Your task to perform on an android device: delete location history Image 0: 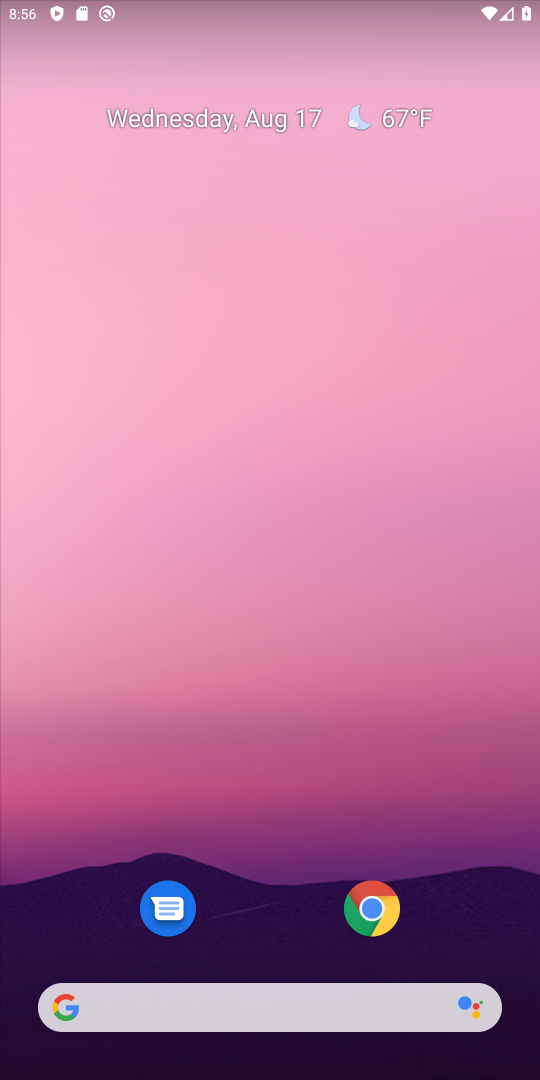
Step 0: drag from (260, 842) to (149, 69)
Your task to perform on an android device: delete location history Image 1: 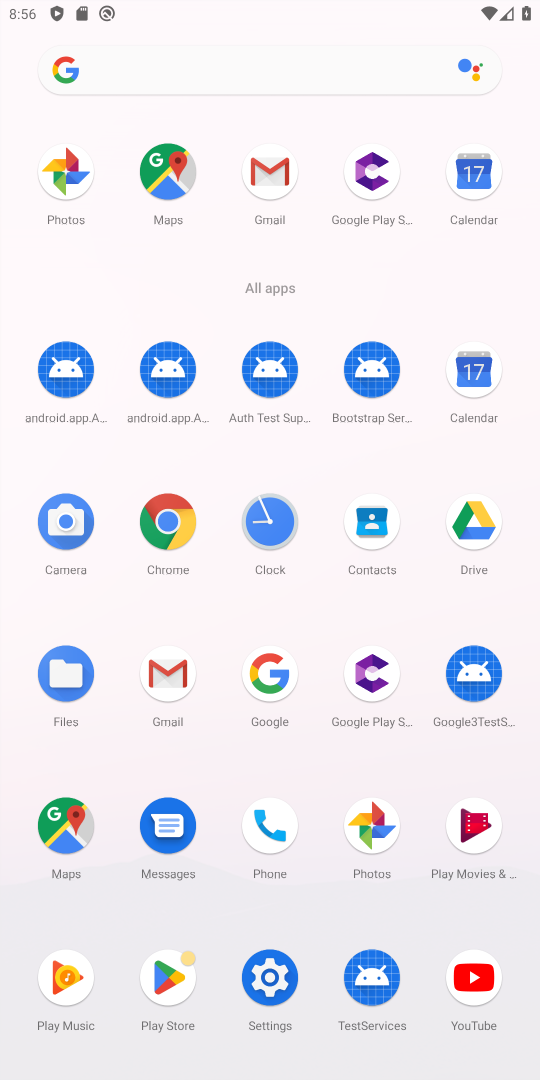
Step 1: click (47, 831)
Your task to perform on an android device: delete location history Image 2: 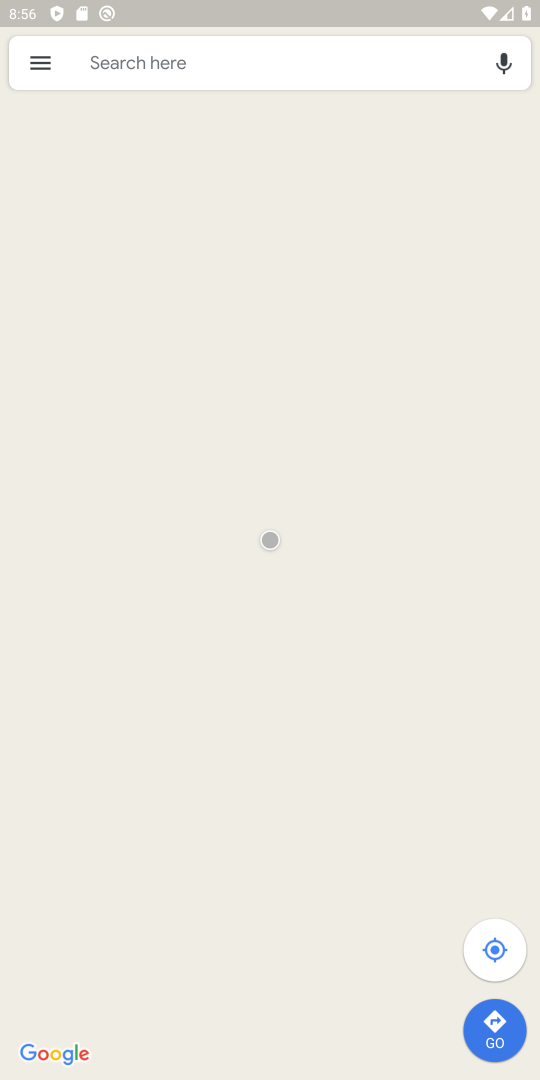
Step 2: click (33, 60)
Your task to perform on an android device: delete location history Image 3: 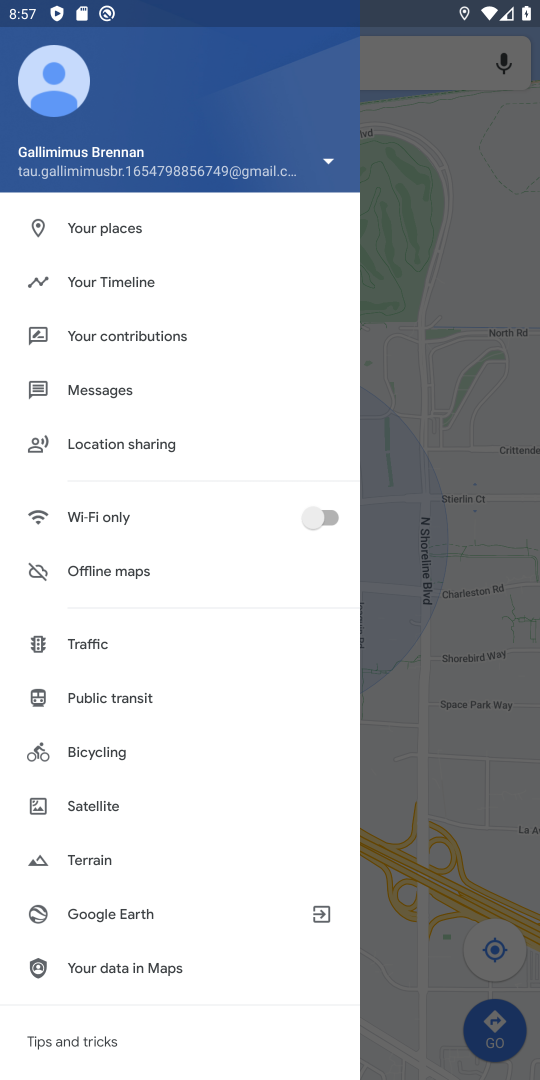
Step 3: click (137, 277)
Your task to perform on an android device: delete location history Image 4: 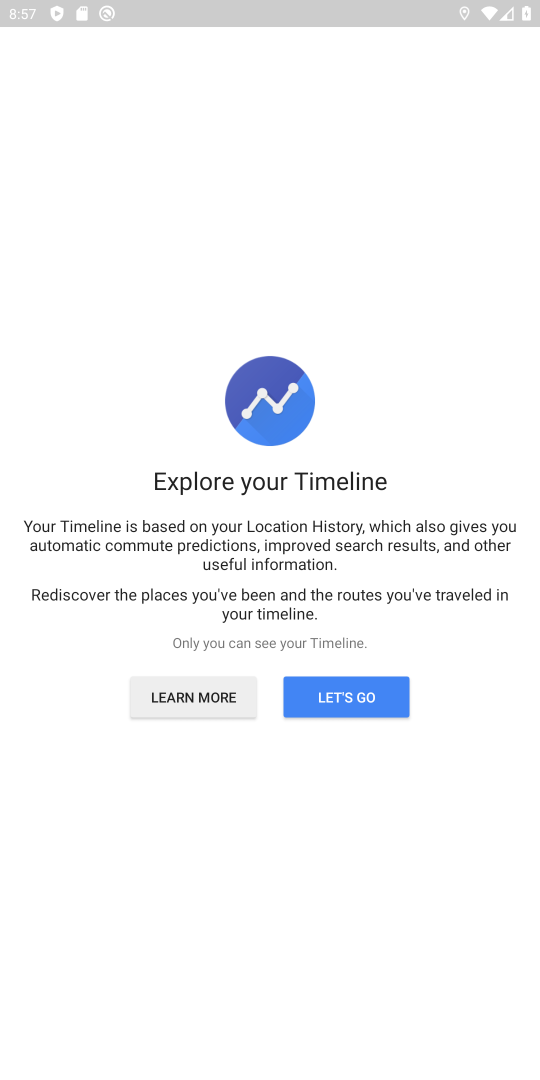
Step 4: click (356, 704)
Your task to perform on an android device: delete location history Image 5: 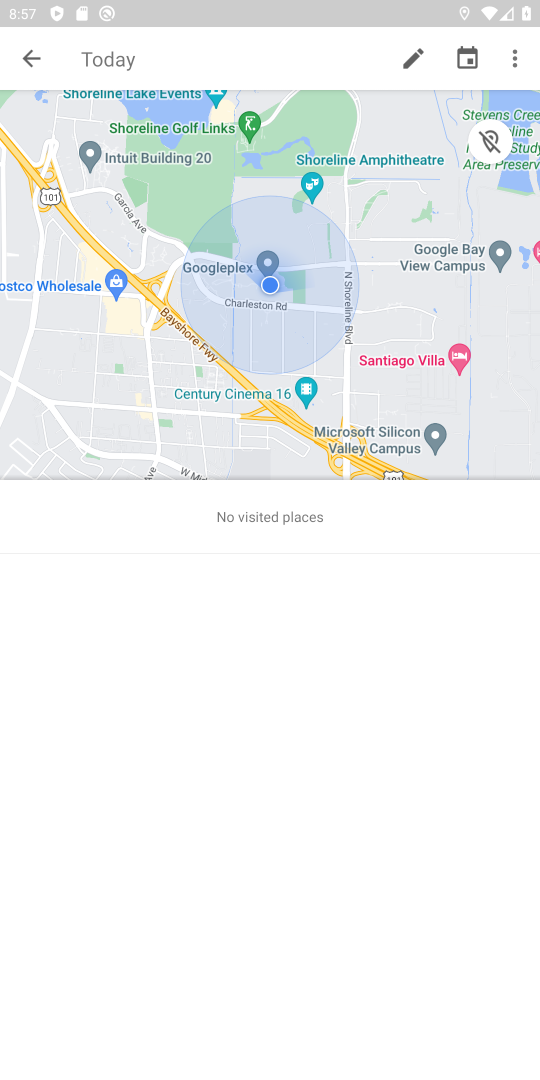
Step 5: task complete